Your task to perform on an android device: turn on data saver in the chrome app Image 0: 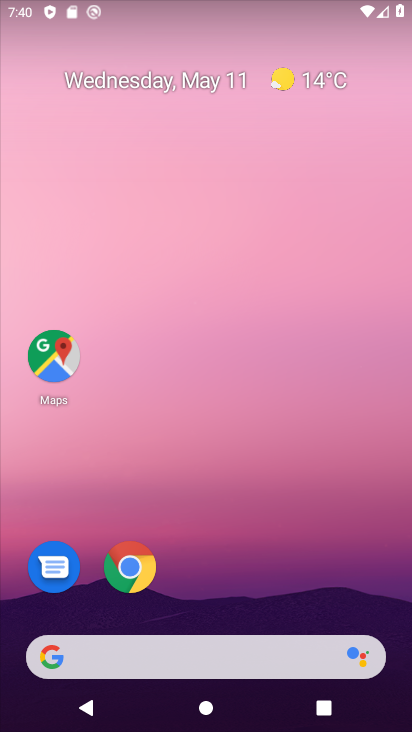
Step 0: click (129, 584)
Your task to perform on an android device: turn on data saver in the chrome app Image 1: 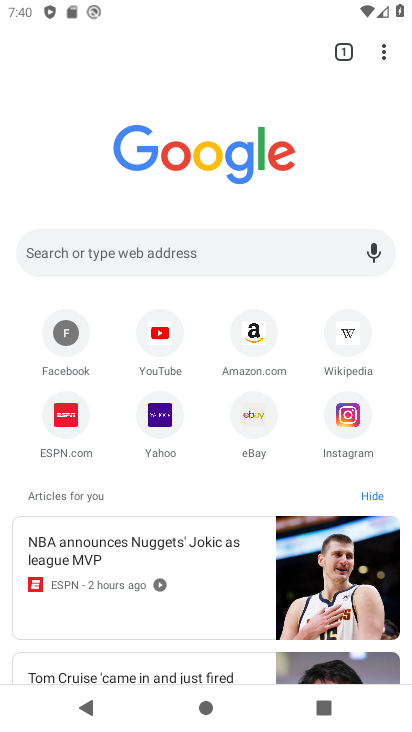
Step 1: click (384, 56)
Your task to perform on an android device: turn on data saver in the chrome app Image 2: 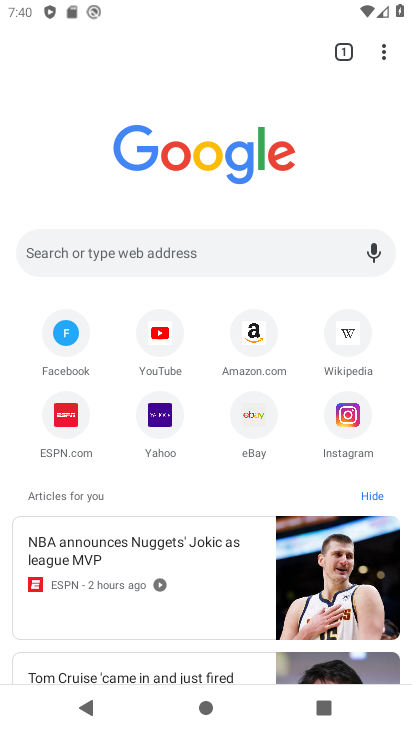
Step 2: click (387, 51)
Your task to perform on an android device: turn on data saver in the chrome app Image 3: 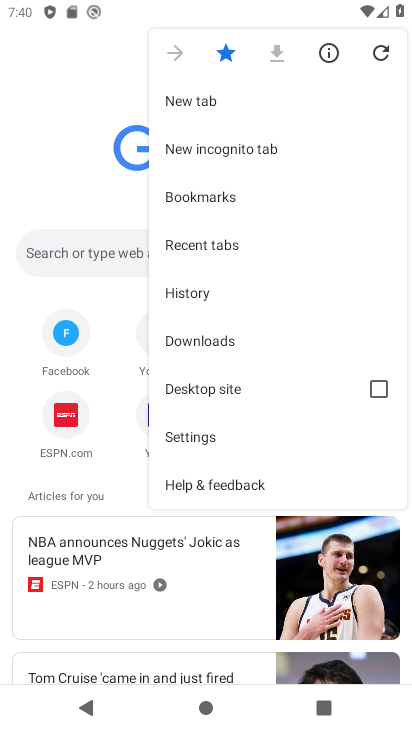
Step 3: click (187, 436)
Your task to perform on an android device: turn on data saver in the chrome app Image 4: 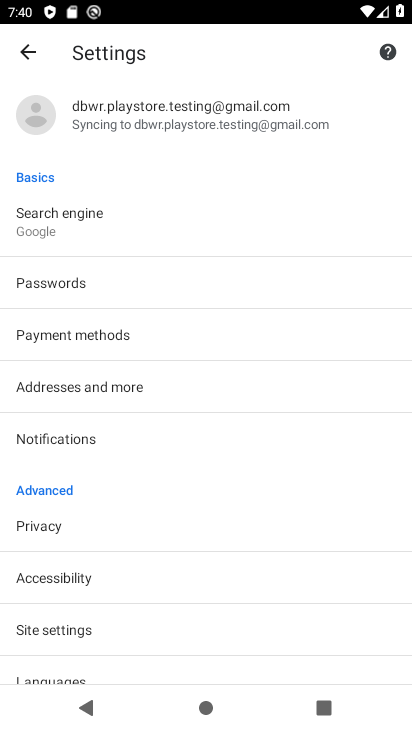
Step 4: drag from (76, 658) to (76, 499)
Your task to perform on an android device: turn on data saver in the chrome app Image 5: 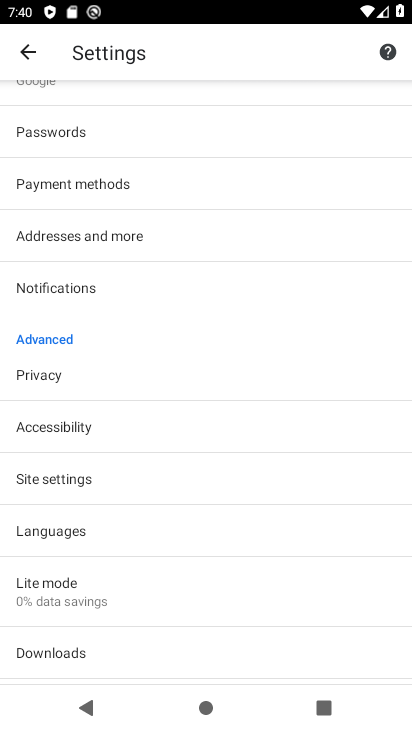
Step 5: drag from (96, 621) to (113, 457)
Your task to perform on an android device: turn on data saver in the chrome app Image 6: 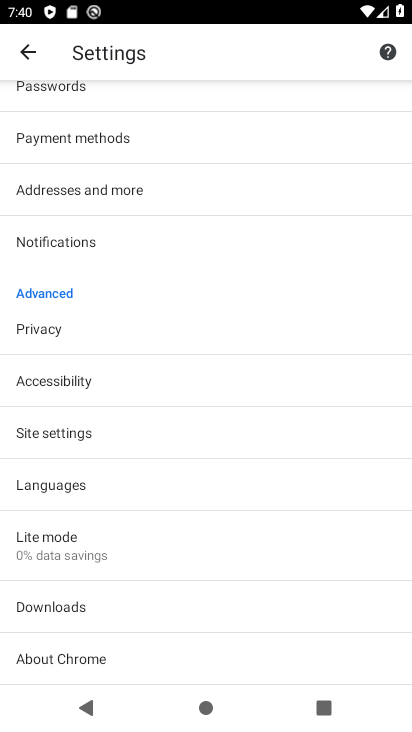
Step 6: drag from (82, 610) to (92, 442)
Your task to perform on an android device: turn on data saver in the chrome app Image 7: 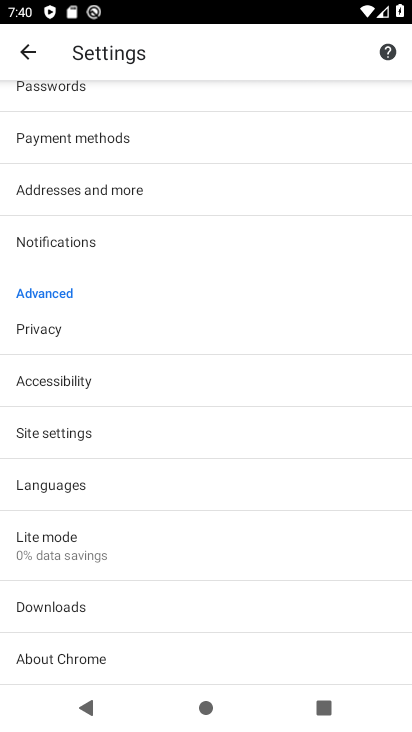
Step 7: drag from (109, 649) to (124, 452)
Your task to perform on an android device: turn on data saver in the chrome app Image 8: 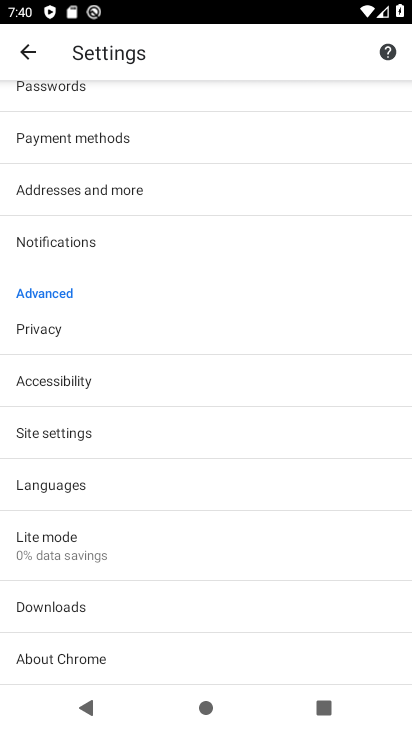
Step 8: drag from (121, 567) to (146, 447)
Your task to perform on an android device: turn on data saver in the chrome app Image 9: 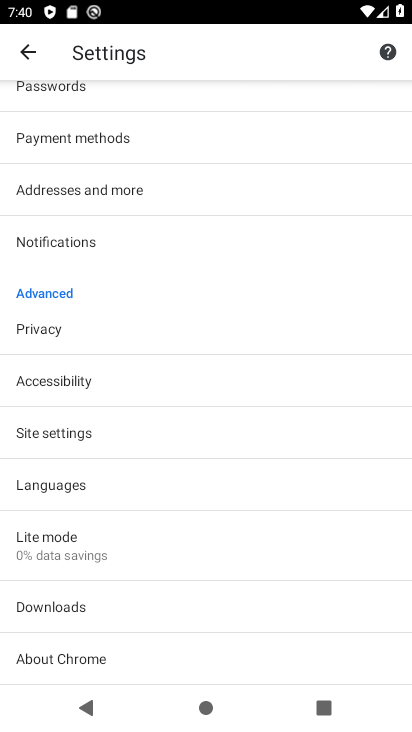
Step 9: drag from (209, 621) to (209, 379)
Your task to perform on an android device: turn on data saver in the chrome app Image 10: 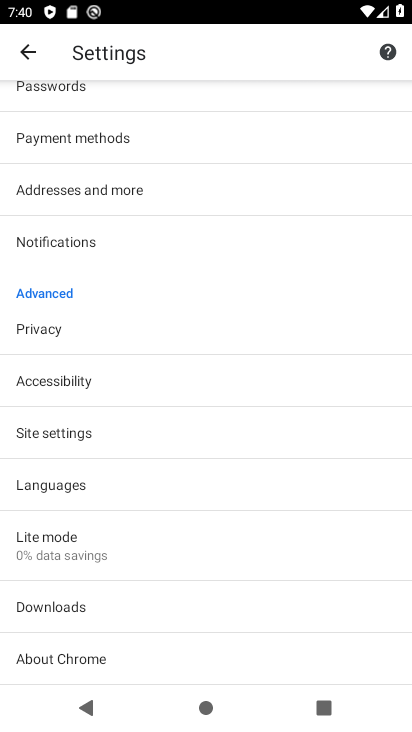
Step 10: click (78, 551)
Your task to perform on an android device: turn on data saver in the chrome app Image 11: 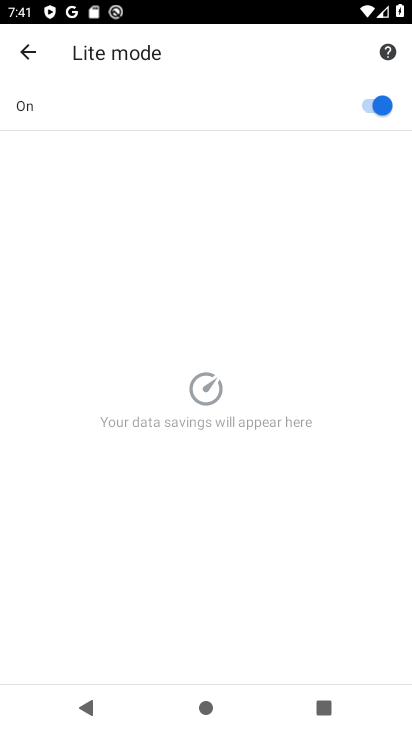
Step 11: task complete